Your task to perform on an android device: When is my next appointment? Image 0: 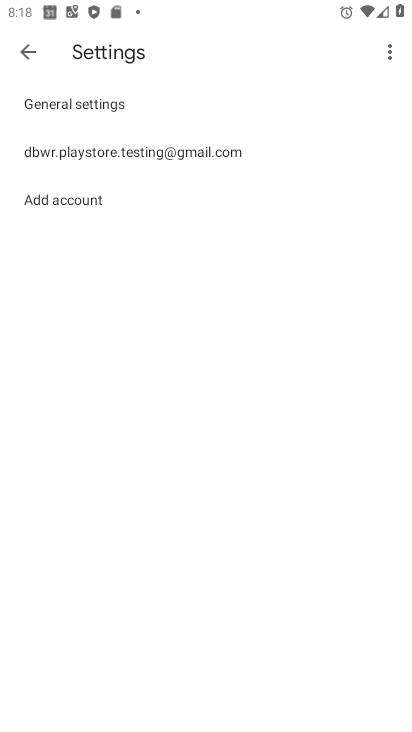
Step 0: type ""
Your task to perform on an android device: When is my next appointment? Image 1: 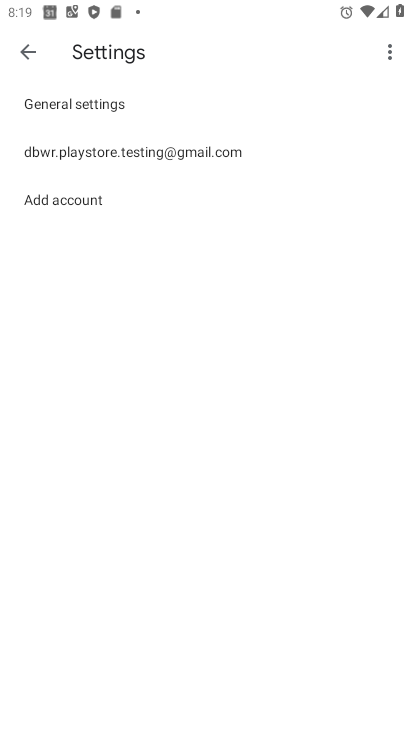
Step 1: press home button
Your task to perform on an android device: When is my next appointment? Image 2: 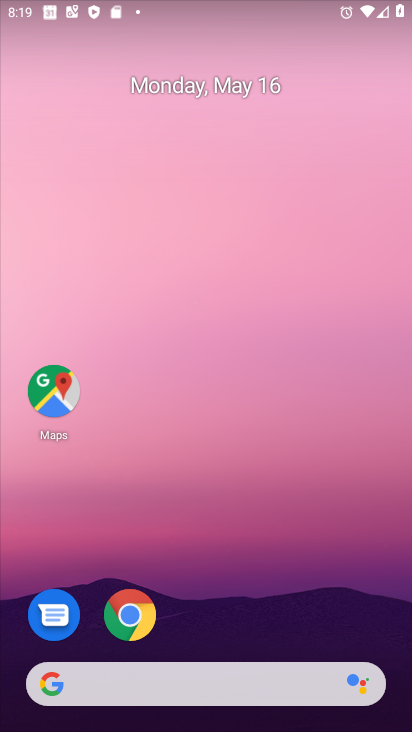
Step 2: click (183, 79)
Your task to perform on an android device: When is my next appointment? Image 3: 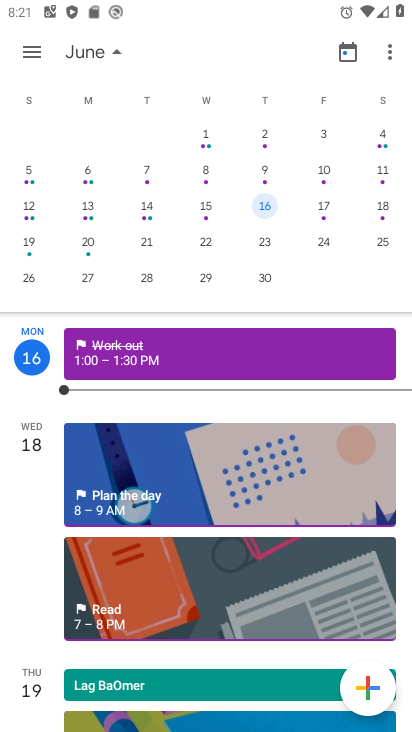
Step 3: task complete